Your task to perform on an android device: Open the web browser Image 0: 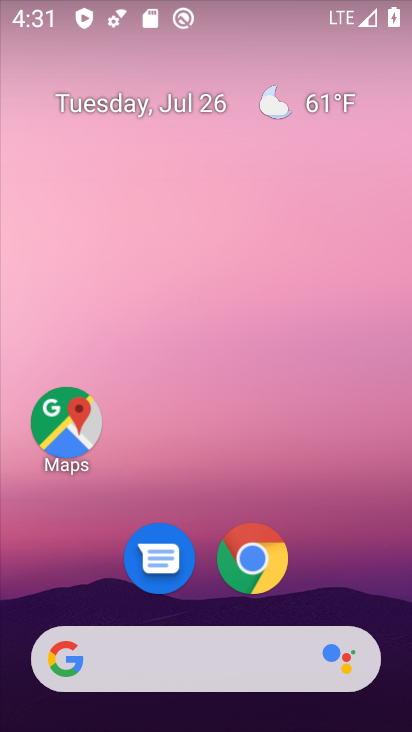
Step 0: click (232, 569)
Your task to perform on an android device: Open the web browser Image 1: 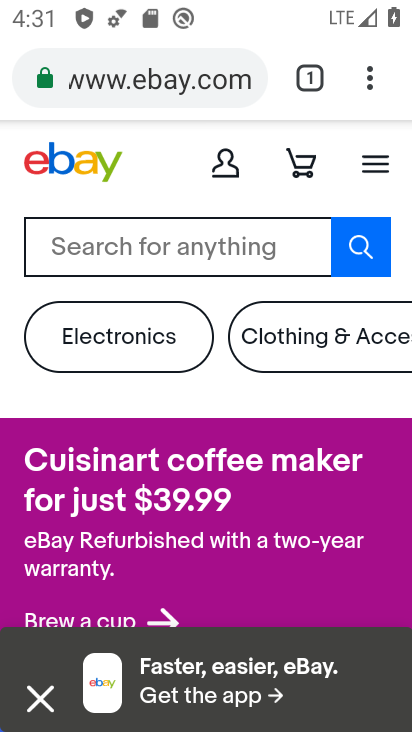
Step 1: task complete